Your task to perform on an android device: Set the phone to "Do not disturb". Image 0: 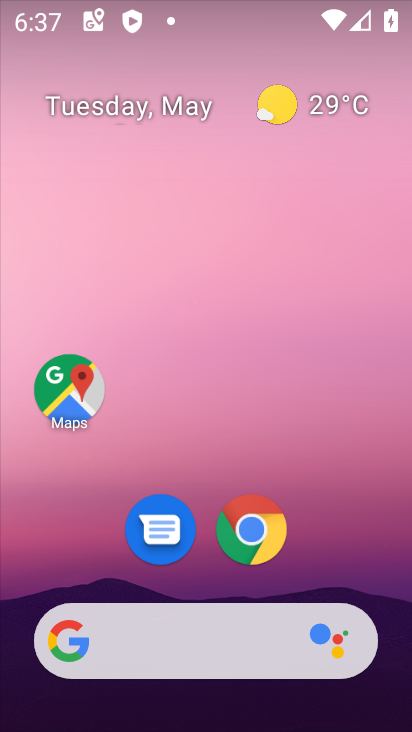
Step 0: drag from (221, 5) to (225, 430)
Your task to perform on an android device: Set the phone to "Do not disturb". Image 1: 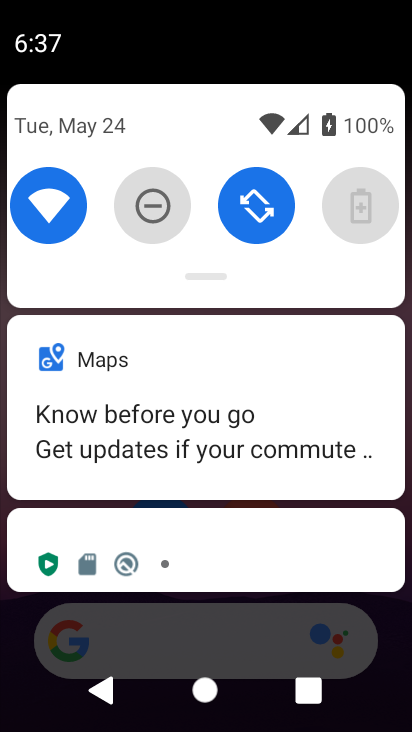
Step 1: click (144, 222)
Your task to perform on an android device: Set the phone to "Do not disturb". Image 2: 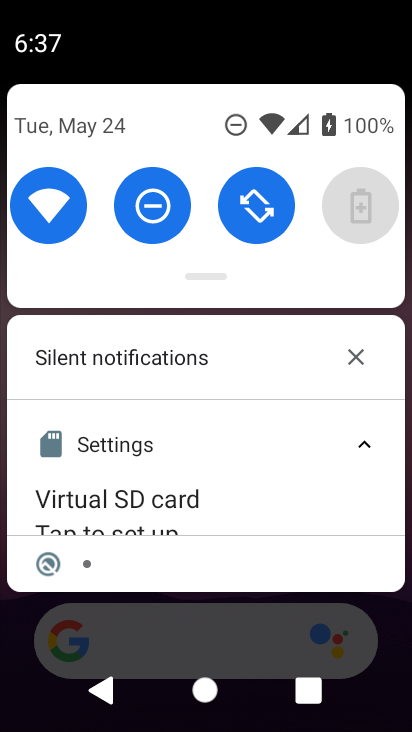
Step 2: task complete